Your task to perform on an android device: delete the emails in spam in the gmail app Image 0: 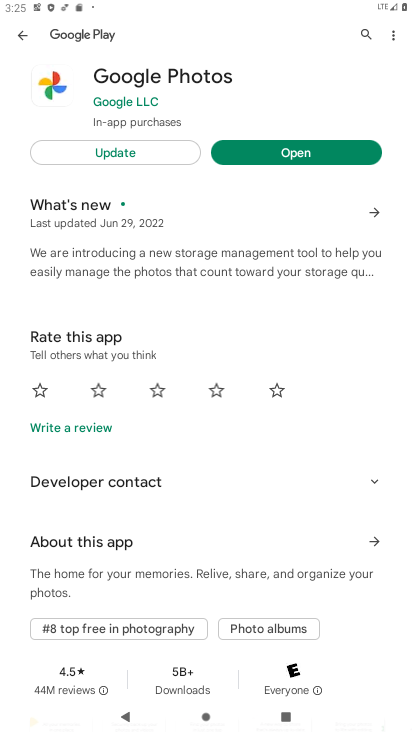
Step 0: press home button
Your task to perform on an android device: delete the emails in spam in the gmail app Image 1: 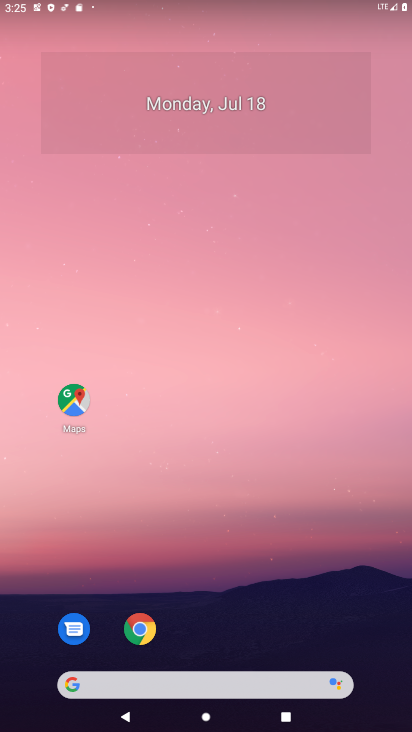
Step 1: drag from (202, 594) to (190, 0)
Your task to perform on an android device: delete the emails in spam in the gmail app Image 2: 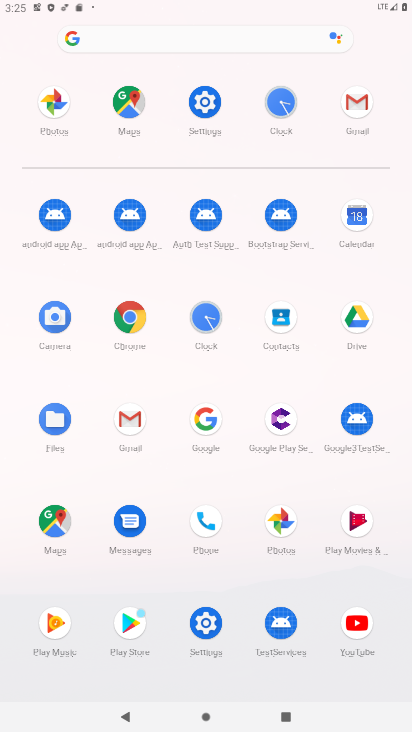
Step 2: click (129, 425)
Your task to perform on an android device: delete the emails in spam in the gmail app Image 3: 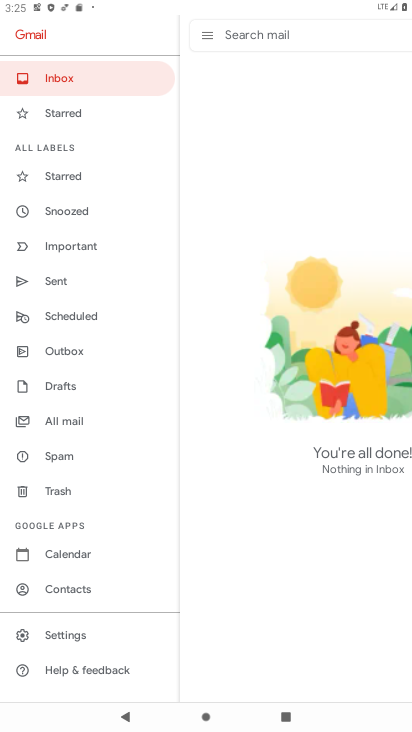
Step 3: click (58, 457)
Your task to perform on an android device: delete the emails in spam in the gmail app Image 4: 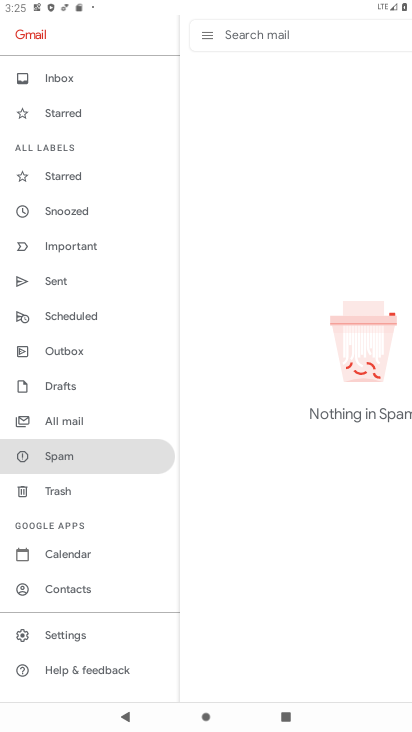
Step 4: task complete